Your task to perform on an android device: Go to calendar. Show me events next week Image 0: 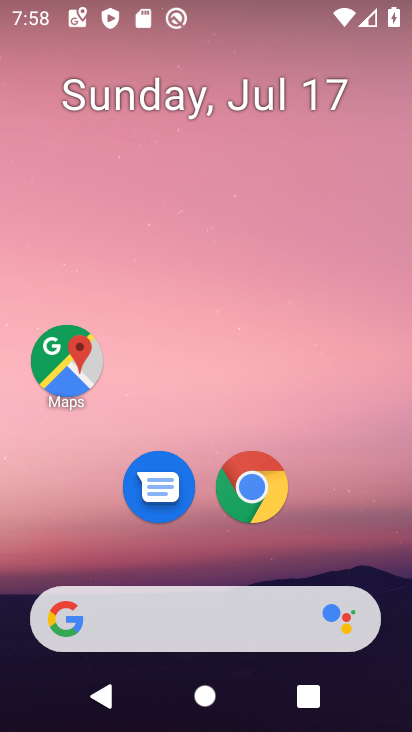
Step 0: drag from (78, 518) to (197, 24)
Your task to perform on an android device: Go to calendar. Show me events next week Image 1: 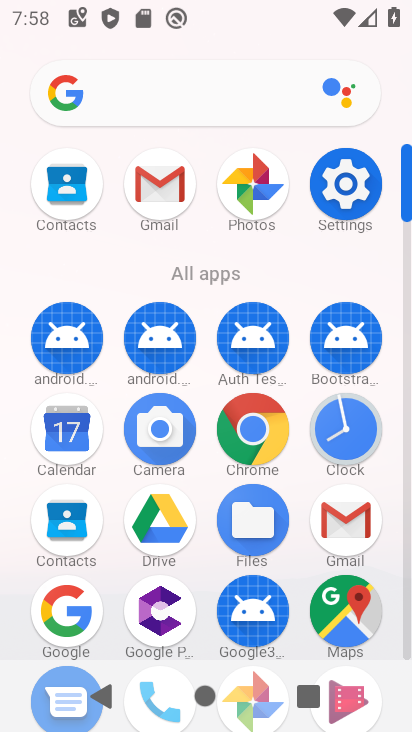
Step 1: click (65, 453)
Your task to perform on an android device: Go to calendar. Show me events next week Image 2: 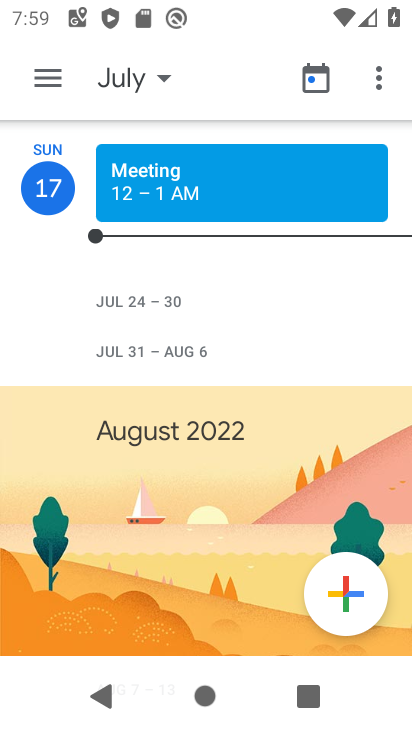
Step 2: click (141, 80)
Your task to perform on an android device: Go to calendar. Show me events next week Image 3: 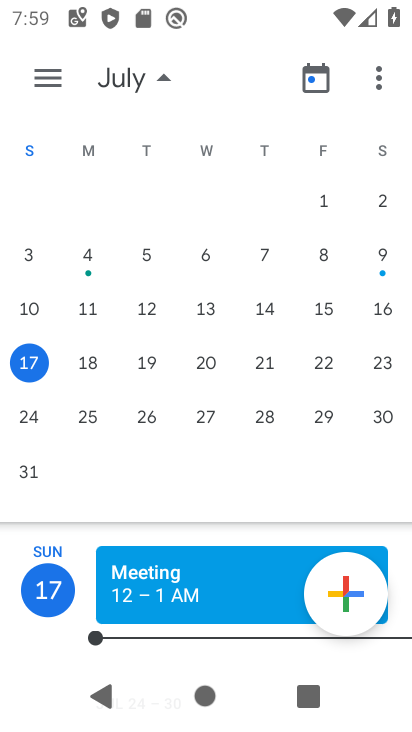
Step 3: click (83, 413)
Your task to perform on an android device: Go to calendar. Show me events next week Image 4: 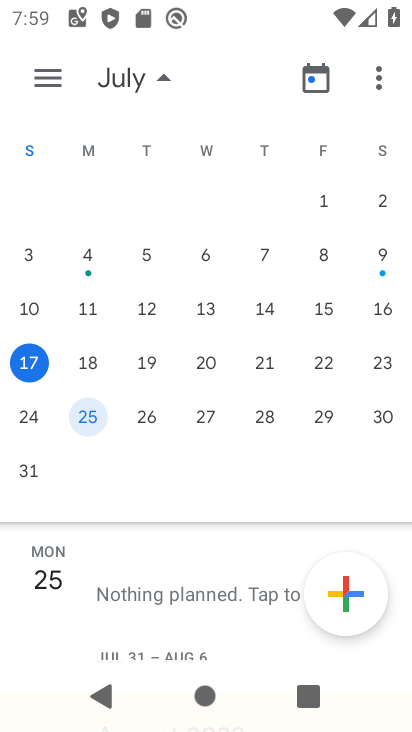
Step 4: task complete